Your task to perform on an android device: turn on bluetooth scan Image 0: 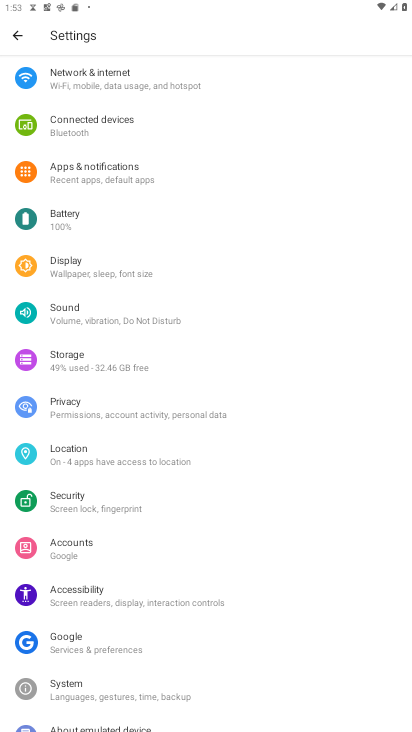
Step 0: press home button
Your task to perform on an android device: turn on bluetooth scan Image 1: 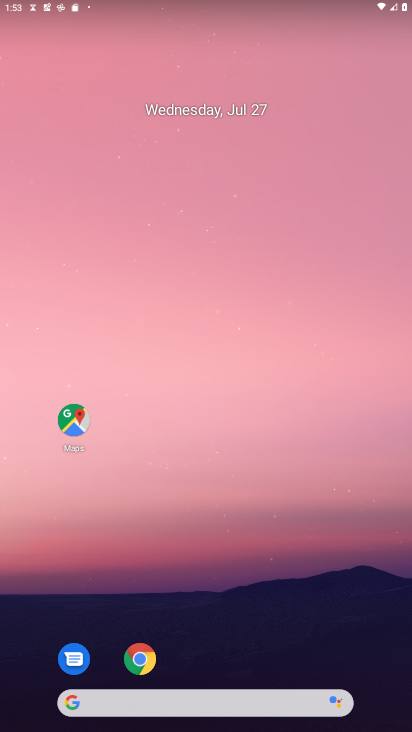
Step 1: drag from (52, 392) to (192, 92)
Your task to perform on an android device: turn on bluetooth scan Image 2: 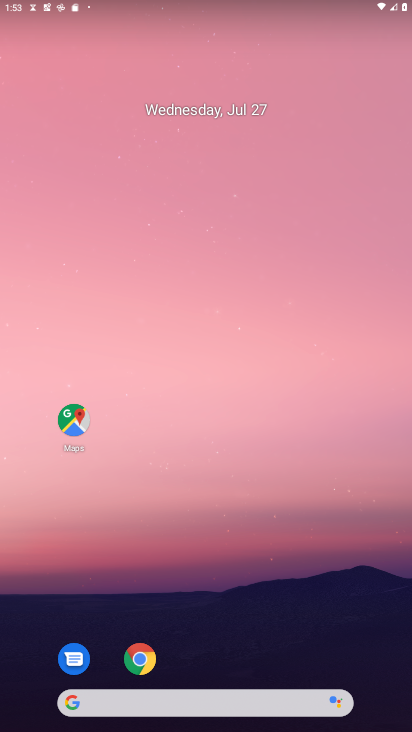
Step 2: drag from (111, 504) to (321, 159)
Your task to perform on an android device: turn on bluetooth scan Image 3: 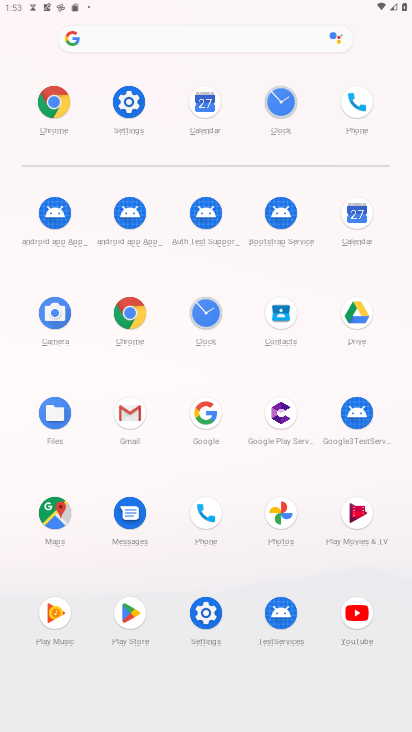
Step 3: click (128, 105)
Your task to perform on an android device: turn on bluetooth scan Image 4: 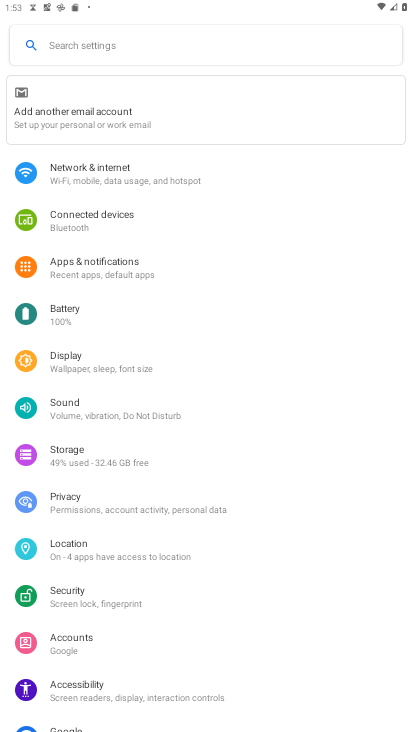
Step 4: click (99, 557)
Your task to perform on an android device: turn on bluetooth scan Image 5: 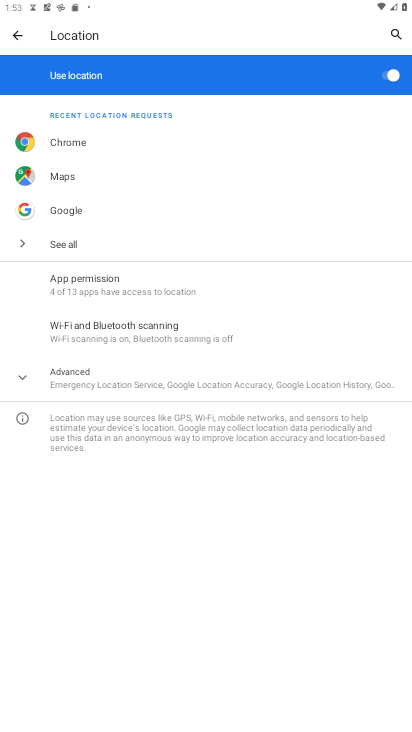
Step 5: click (133, 341)
Your task to perform on an android device: turn on bluetooth scan Image 6: 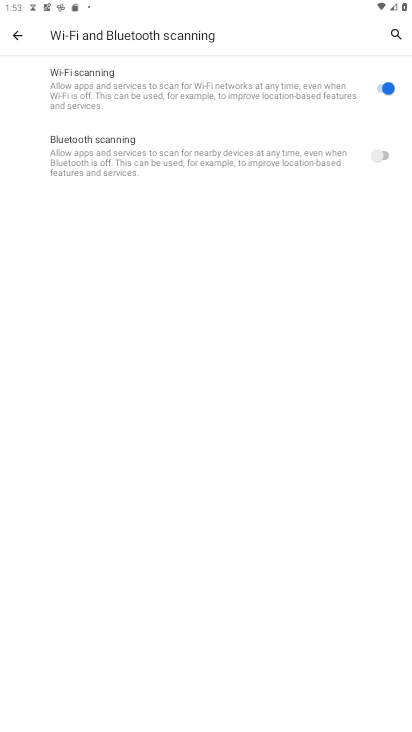
Step 6: click (370, 156)
Your task to perform on an android device: turn on bluetooth scan Image 7: 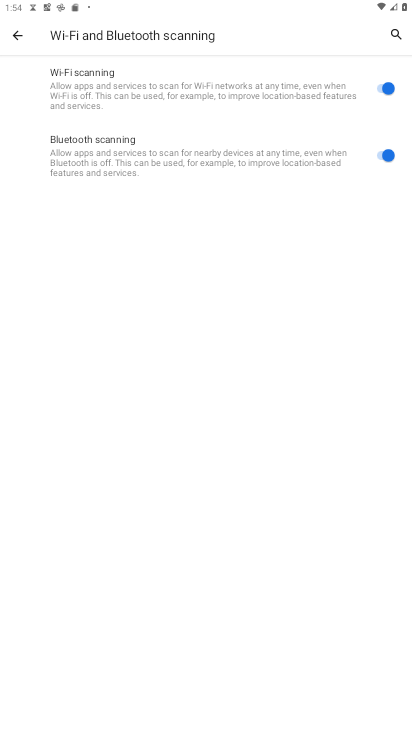
Step 7: task complete